Your task to perform on an android device: Open network settings Image 0: 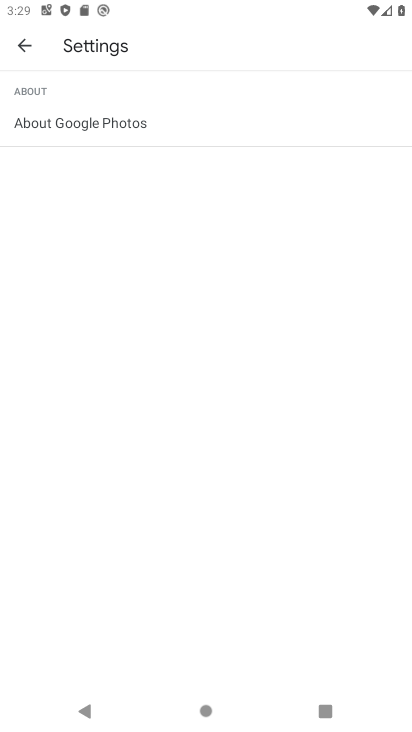
Step 0: press home button
Your task to perform on an android device: Open network settings Image 1: 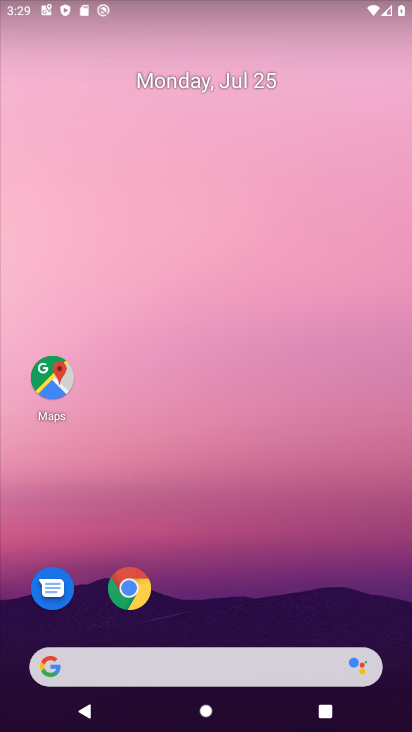
Step 1: drag from (307, 571) to (253, 49)
Your task to perform on an android device: Open network settings Image 2: 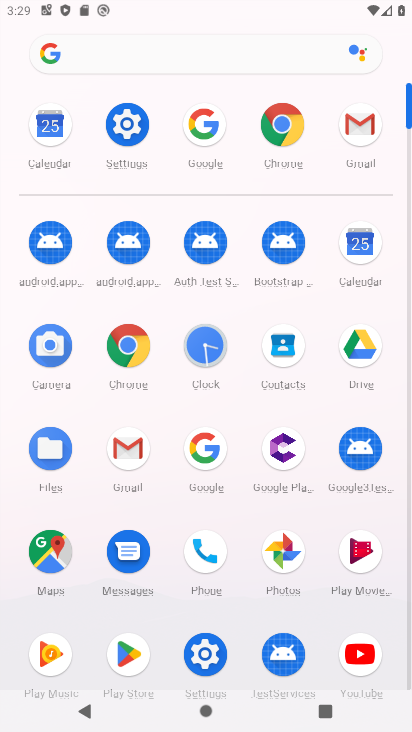
Step 2: click (132, 125)
Your task to perform on an android device: Open network settings Image 3: 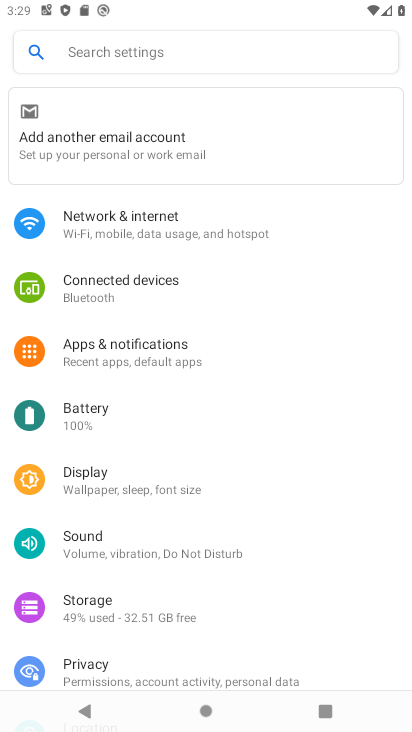
Step 3: click (157, 225)
Your task to perform on an android device: Open network settings Image 4: 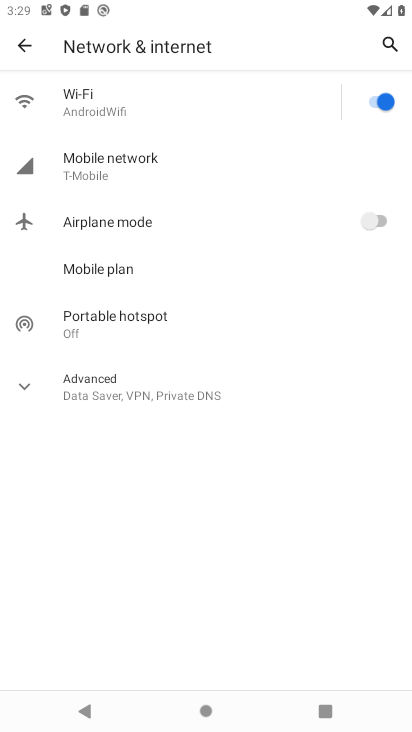
Step 4: click (160, 393)
Your task to perform on an android device: Open network settings Image 5: 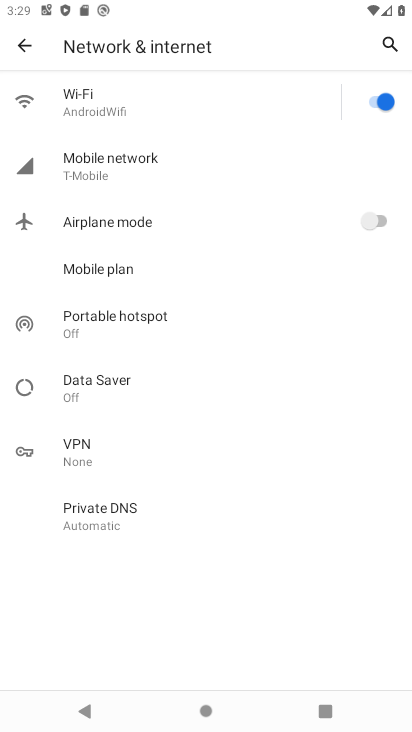
Step 5: task complete